Your task to perform on an android device: What's on my calendar tomorrow? Image 0: 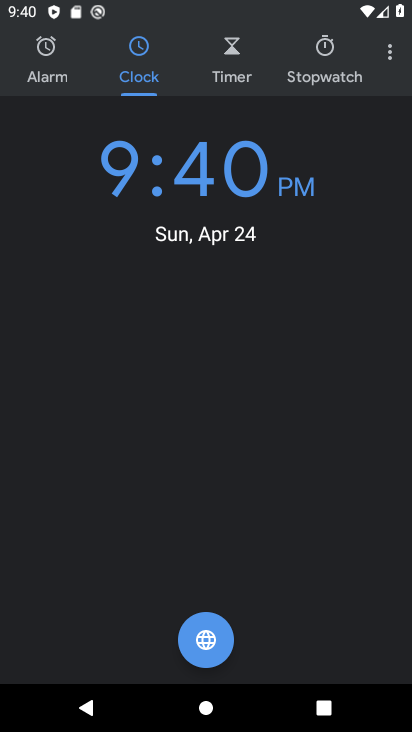
Step 0: click (406, 479)
Your task to perform on an android device: What's on my calendar tomorrow? Image 1: 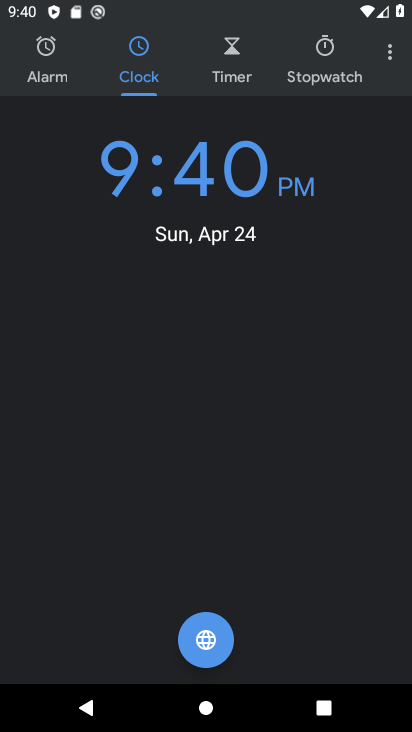
Step 1: press home button
Your task to perform on an android device: What's on my calendar tomorrow? Image 2: 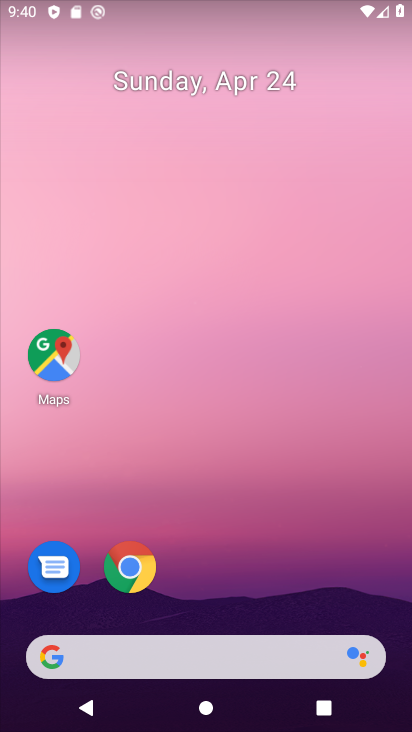
Step 2: drag from (23, 701) to (369, 228)
Your task to perform on an android device: What's on my calendar tomorrow? Image 3: 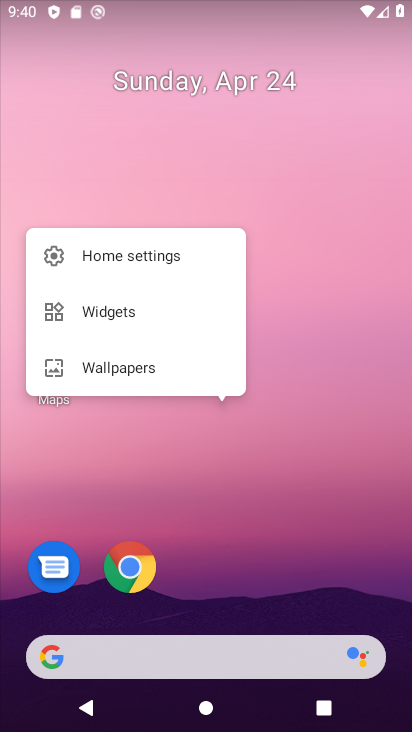
Step 3: click (0, 721)
Your task to perform on an android device: What's on my calendar tomorrow? Image 4: 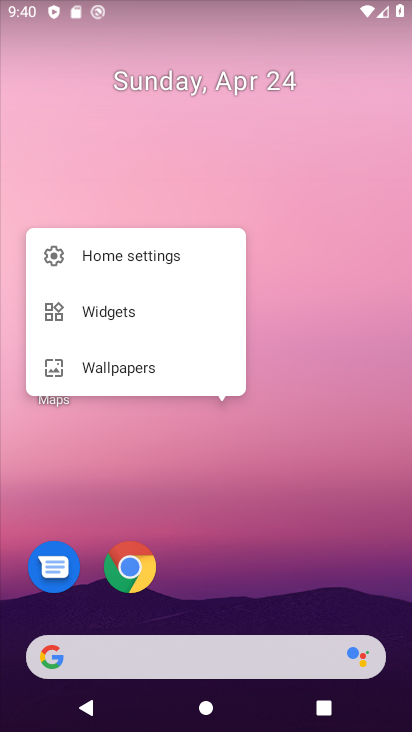
Step 4: drag from (82, 576) to (311, 285)
Your task to perform on an android device: What's on my calendar tomorrow? Image 5: 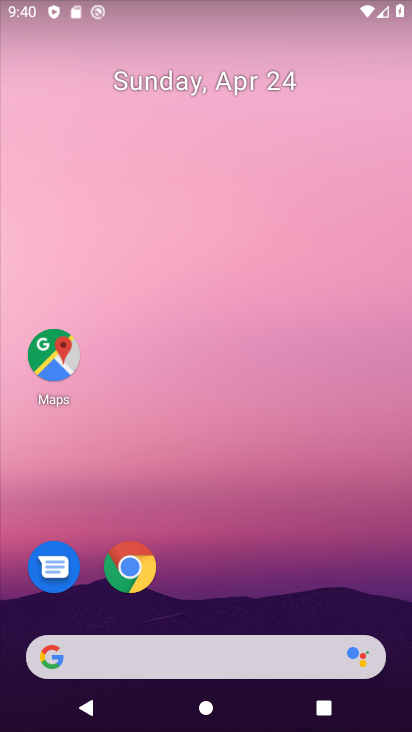
Step 5: drag from (368, 338) to (408, 288)
Your task to perform on an android device: What's on my calendar tomorrow? Image 6: 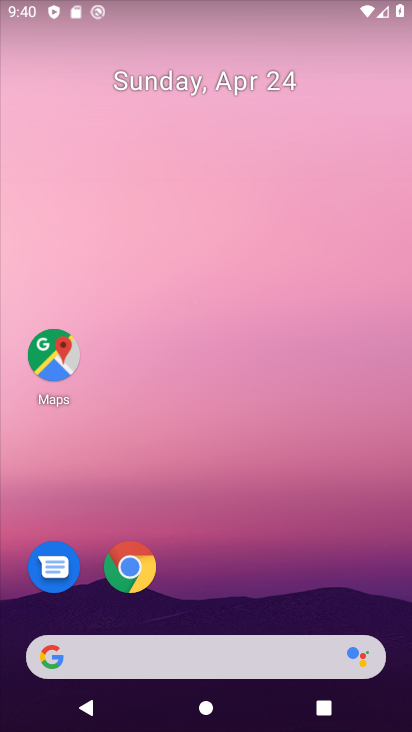
Step 6: drag from (31, 623) to (332, 172)
Your task to perform on an android device: What's on my calendar tomorrow? Image 7: 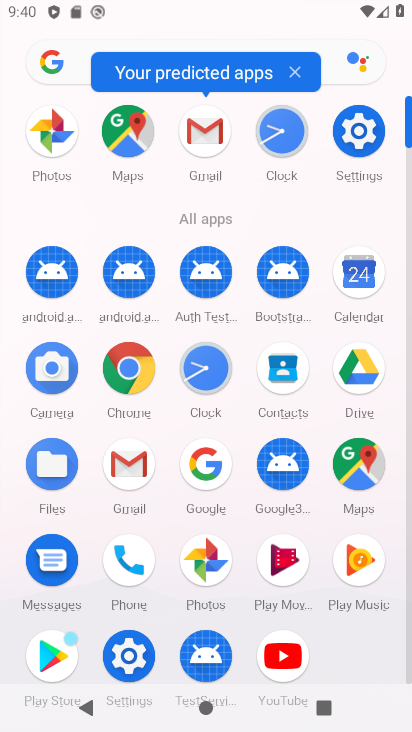
Step 7: click (362, 289)
Your task to perform on an android device: What's on my calendar tomorrow? Image 8: 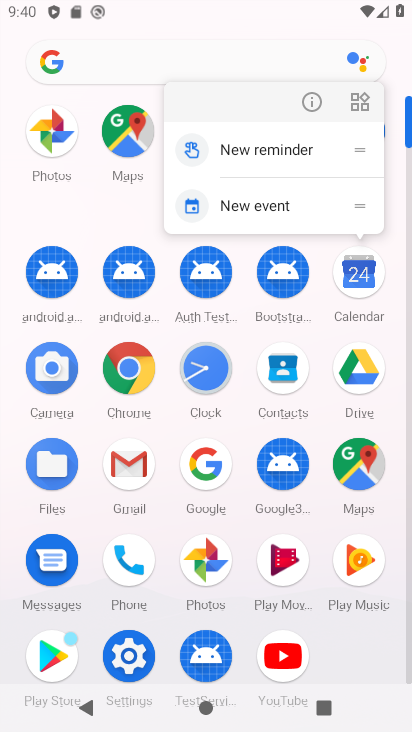
Step 8: click (309, 101)
Your task to perform on an android device: What's on my calendar tomorrow? Image 9: 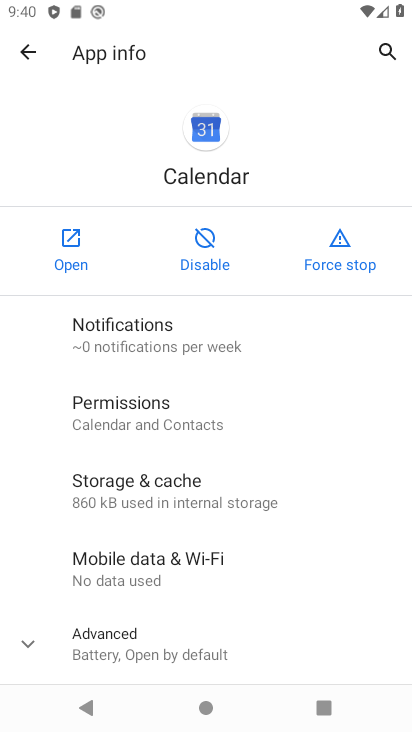
Step 9: click (65, 257)
Your task to perform on an android device: What's on my calendar tomorrow? Image 10: 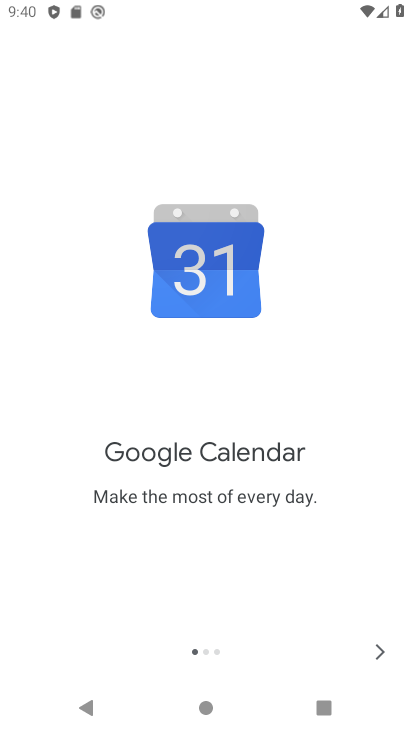
Step 10: click (387, 649)
Your task to perform on an android device: What's on my calendar tomorrow? Image 11: 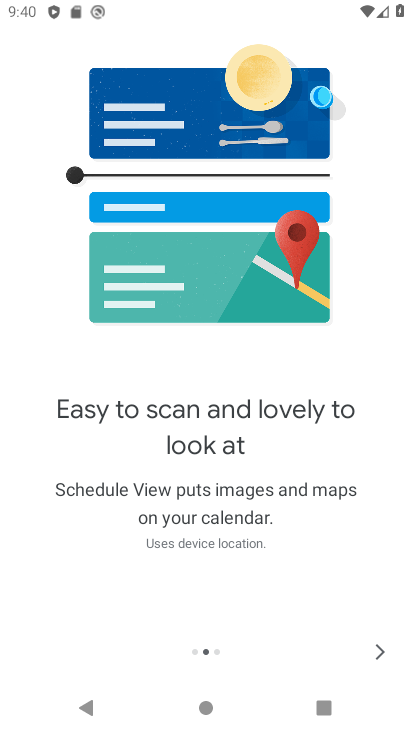
Step 11: click (387, 649)
Your task to perform on an android device: What's on my calendar tomorrow? Image 12: 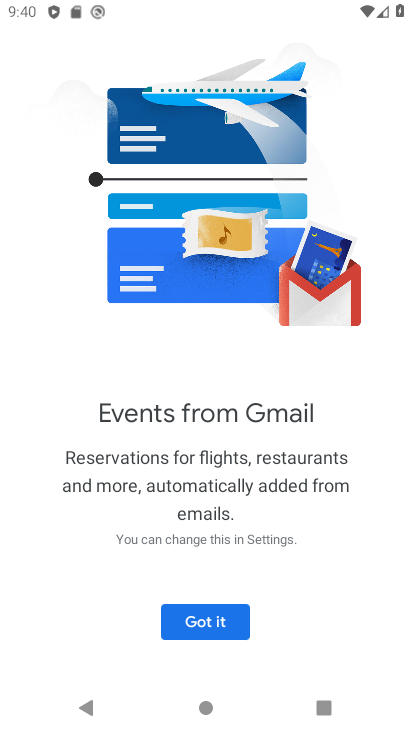
Step 12: click (237, 624)
Your task to perform on an android device: What's on my calendar tomorrow? Image 13: 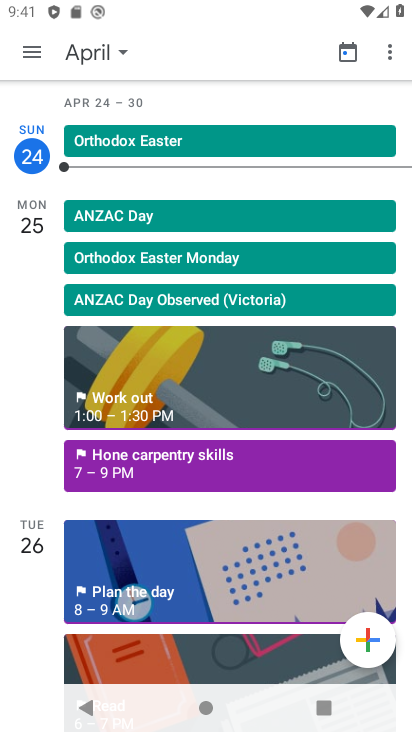
Step 13: click (39, 223)
Your task to perform on an android device: What's on my calendar tomorrow? Image 14: 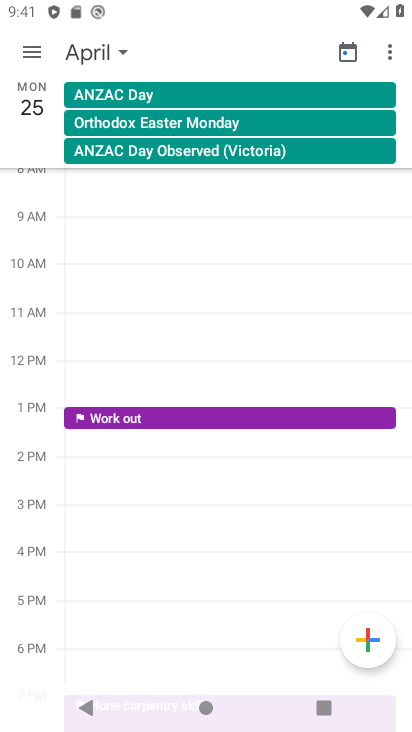
Step 14: task complete